Your task to perform on an android device: turn on data saver in the chrome app Image 0: 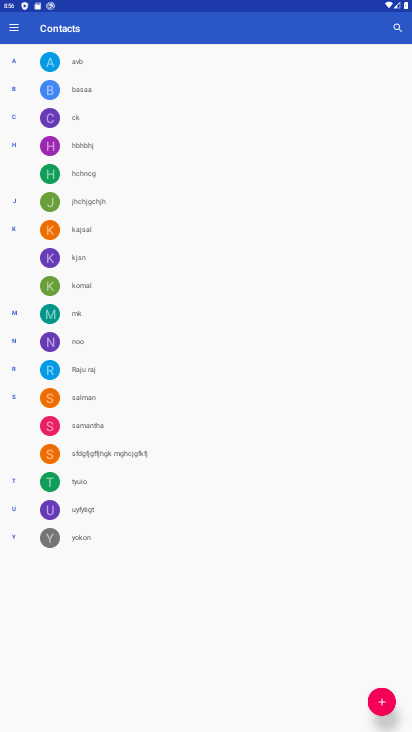
Step 0: press home button
Your task to perform on an android device: turn on data saver in the chrome app Image 1: 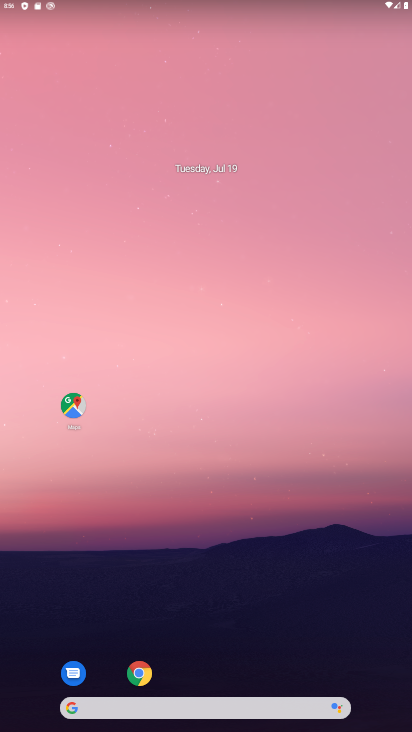
Step 1: click (152, 663)
Your task to perform on an android device: turn on data saver in the chrome app Image 2: 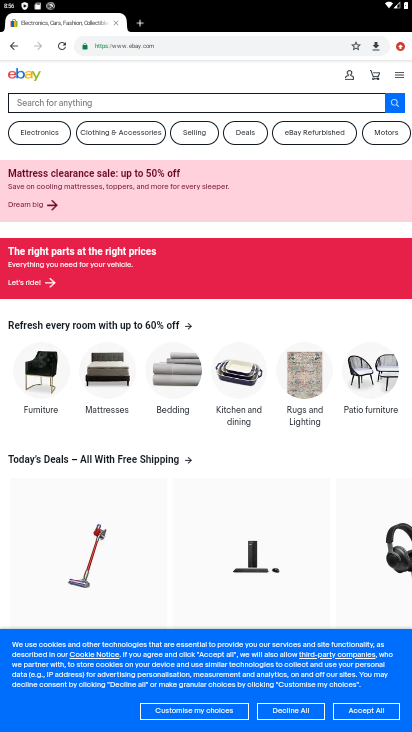
Step 2: click (398, 47)
Your task to perform on an android device: turn on data saver in the chrome app Image 3: 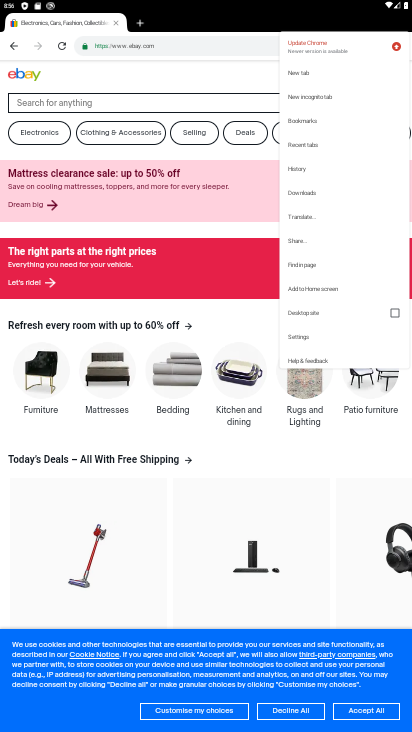
Step 3: click (309, 334)
Your task to perform on an android device: turn on data saver in the chrome app Image 4: 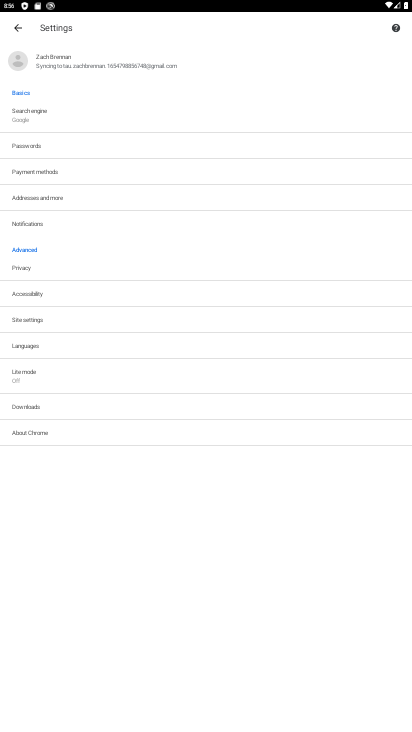
Step 4: click (63, 375)
Your task to perform on an android device: turn on data saver in the chrome app Image 5: 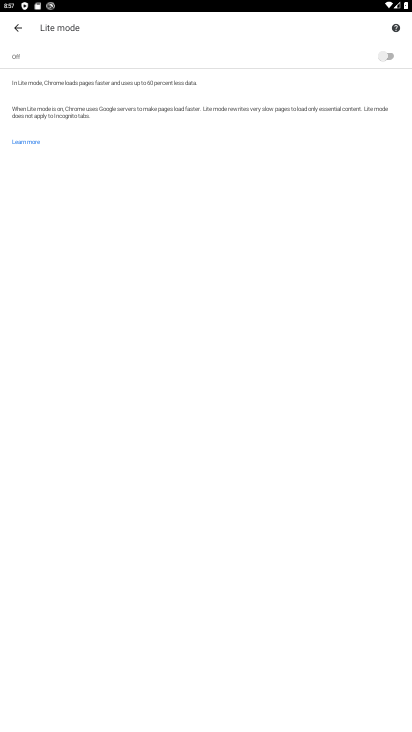
Step 5: press home button
Your task to perform on an android device: turn on data saver in the chrome app Image 6: 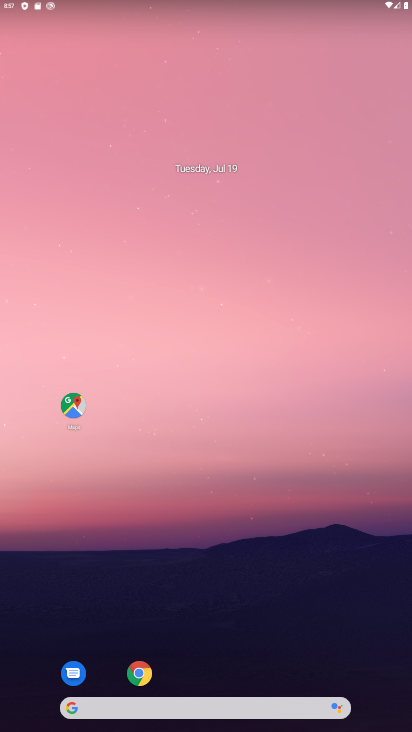
Step 6: click (146, 671)
Your task to perform on an android device: turn on data saver in the chrome app Image 7: 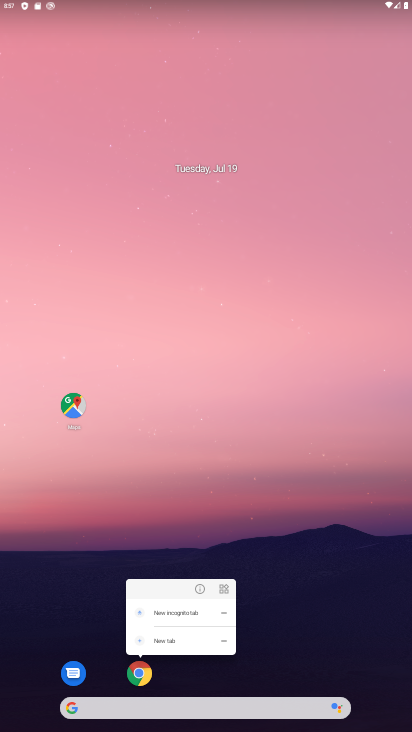
Step 7: click (141, 670)
Your task to perform on an android device: turn on data saver in the chrome app Image 8: 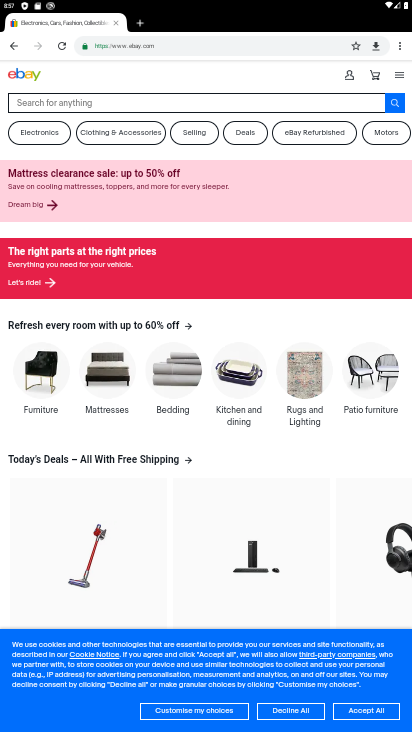
Step 8: click (150, 672)
Your task to perform on an android device: turn on data saver in the chrome app Image 9: 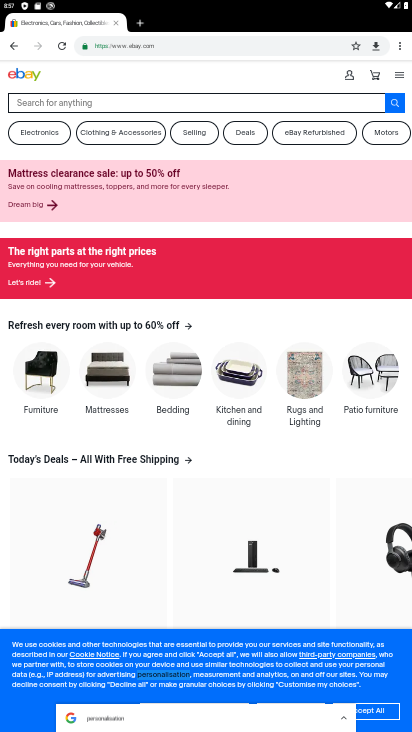
Step 9: click (397, 49)
Your task to perform on an android device: turn on data saver in the chrome app Image 10: 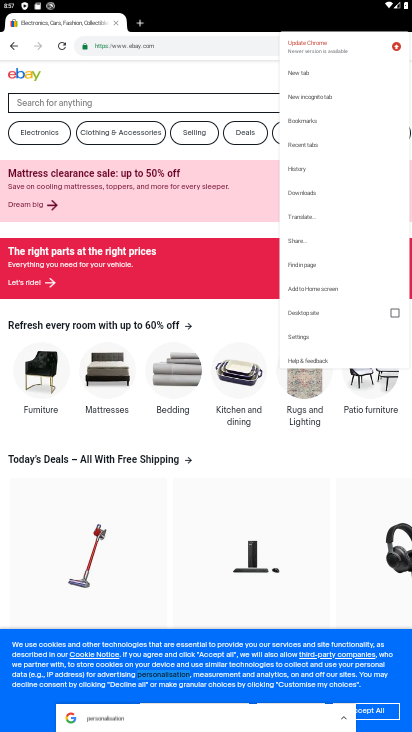
Step 10: click (309, 331)
Your task to perform on an android device: turn on data saver in the chrome app Image 11: 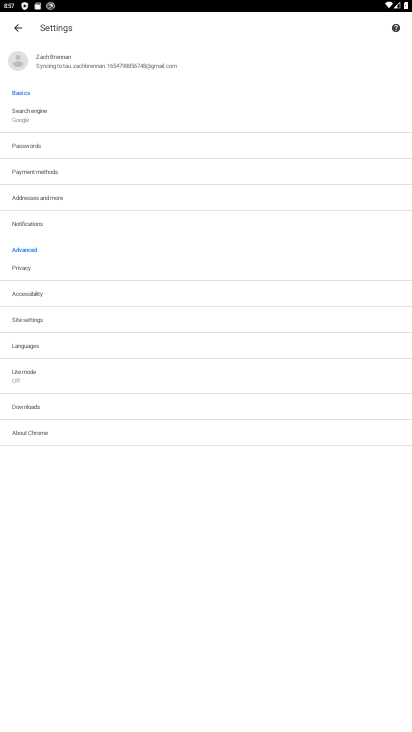
Step 11: click (51, 371)
Your task to perform on an android device: turn on data saver in the chrome app Image 12: 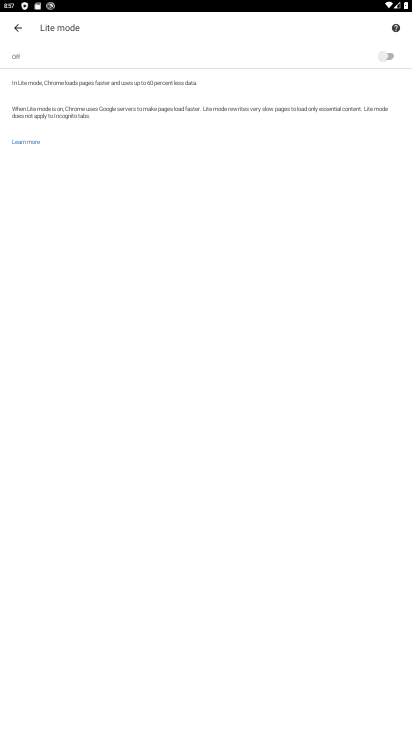
Step 12: click (397, 55)
Your task to perform on an android device: turn on data saver in the chrome app Image 13: 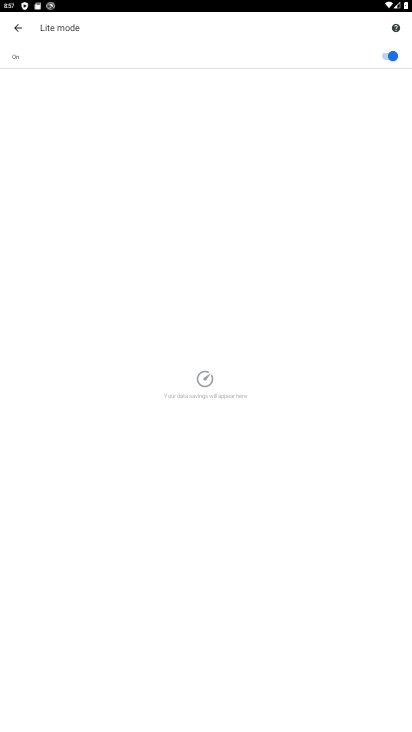
Step 13: task complete